Your task to perform on an android device: Open Maps and search for coffee Image 0: 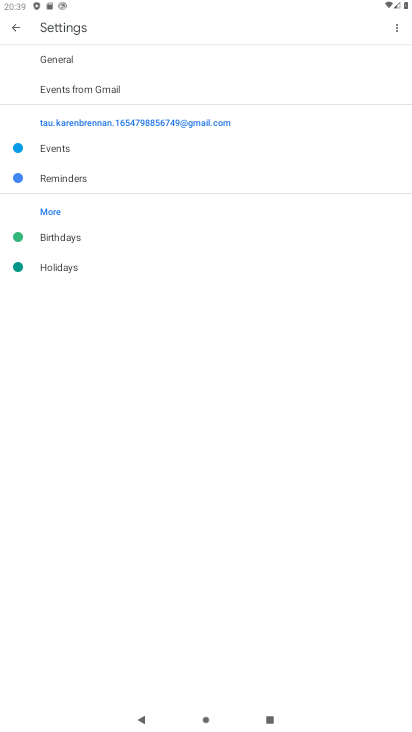
Step 0: press home button
Your task to perform on an android device: Open Maps and search for coffee Image 1: 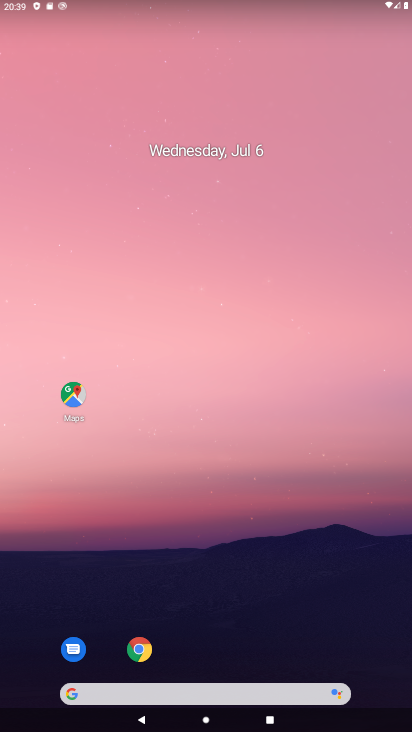
Step 1: click (71, 401)
Your task to perform on an android device: Open Maps and search for coffee Image 2: 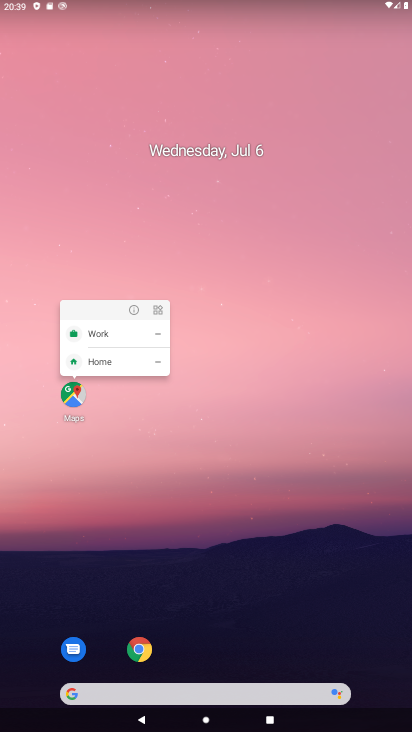
Step 2: click (68, 392)
Your task to perform on an android device: Open Maps and search for coffee Image 3: 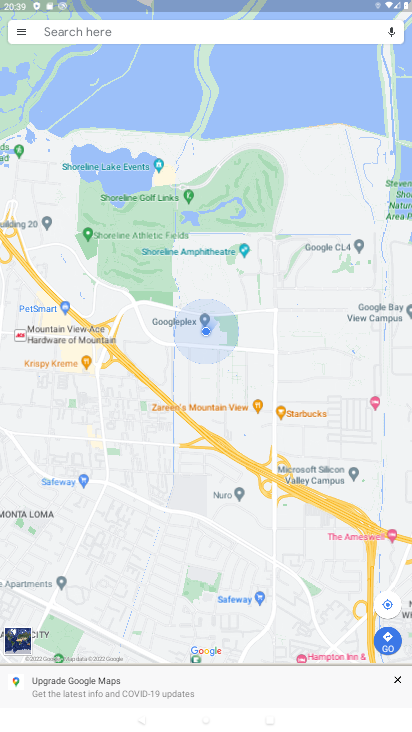
Step 3: click (195, 31)
Your task to perform on an android device: Open Maps and search for coffee Image 4: 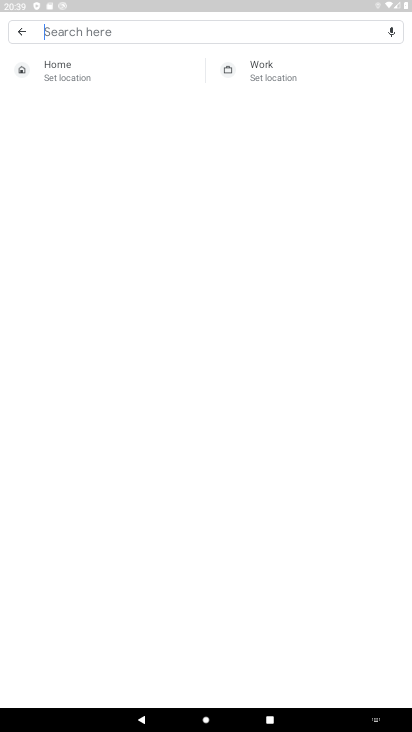
Step 4: type "coffee"
Your task to perform on an android device: Open Maps and search for coffee Image 5: 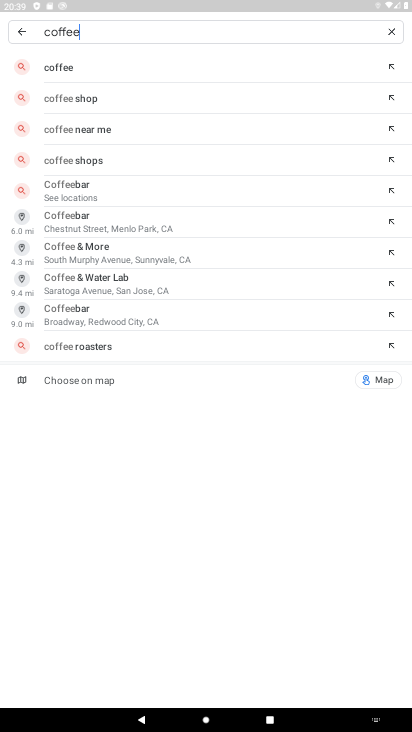
Step 5: click (135, 68)
Your task to perform on an android device: Open Maps and search for coffee Image 6: 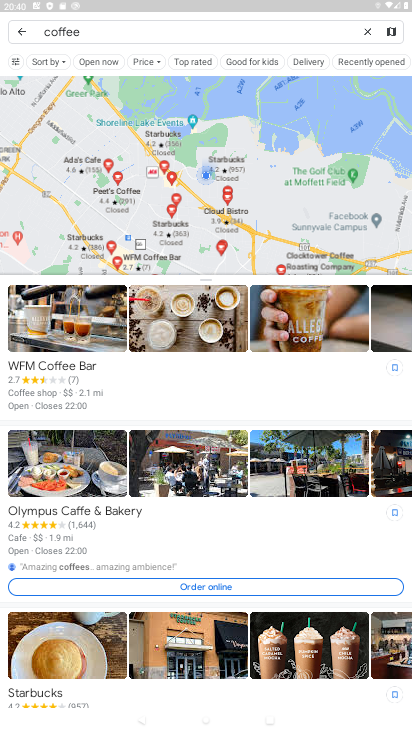
Step 6: task complete